Your task to perform on an android device: turn on showing notifications on the lock screen Image 0: 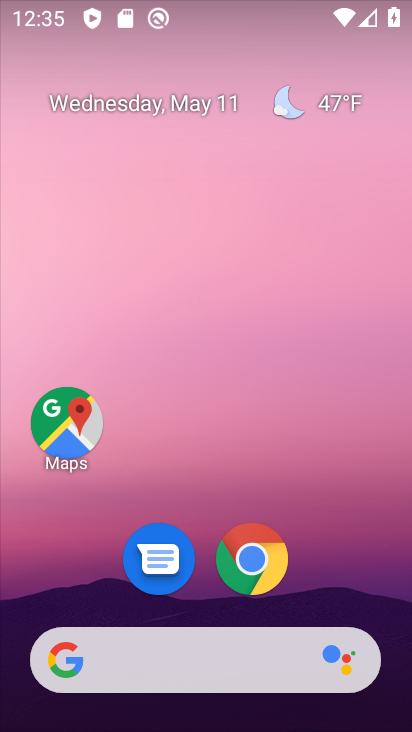
Step 0: drag from (219, 616) to (307, 102)
Your task to perform on an android device: turn on showing notifications on the lock screen Image 1: 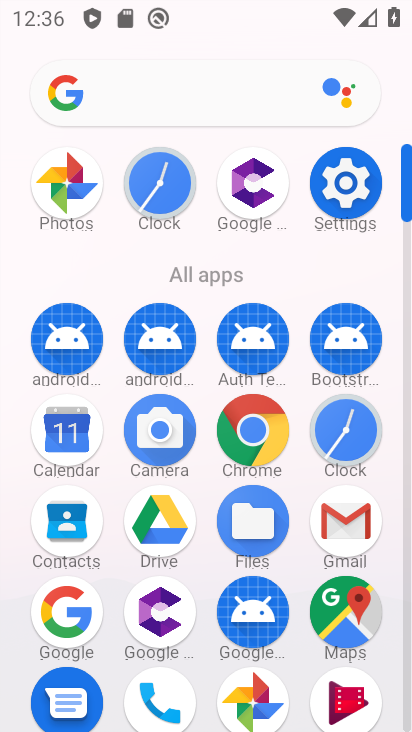
Step 1: click (351, 204)
Your task to perform on an android device: turn on showing notifications on the lock screen Image 2: 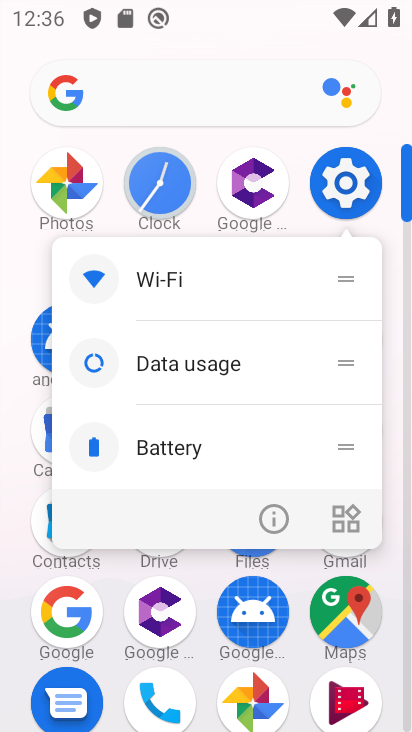
Step 2: click (357, 179)
Your task to perform on an android device: turn on showing notifications on the lock screen Image 3: 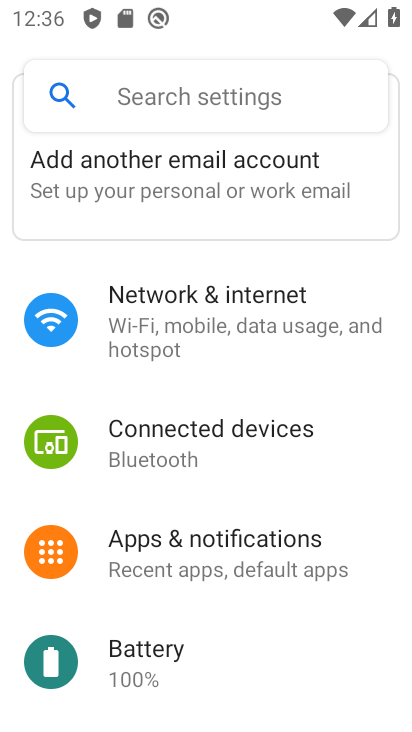
Step 3: click (203, 548)
Your task to perform on an android device: turn on showing notifications on the lock screen Image 4: 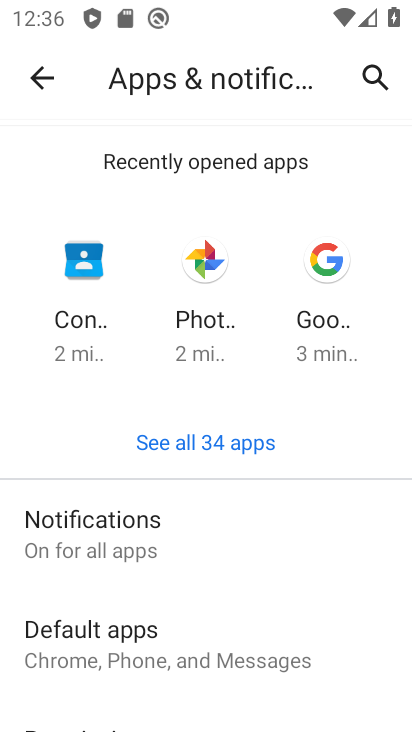
Step 4: click (171, 529)
Your task to perform on an android device: turn on showing notifications on the lock screen Image 5: 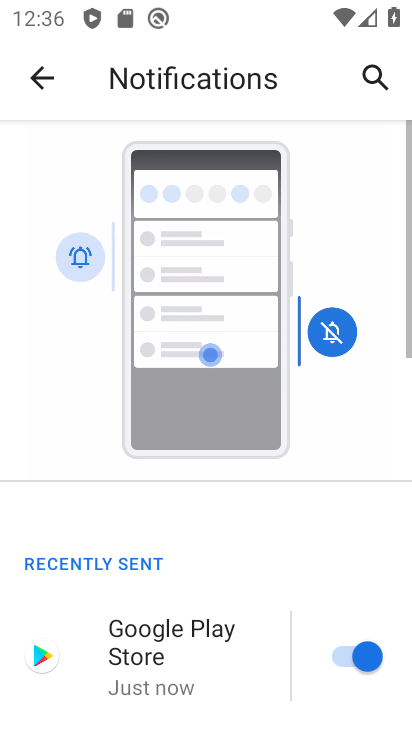
Step 5: drag from (191, 626) to (248, 125)
Your task to perform on an android device: turn on showing notifications on the lock screen Image 6: 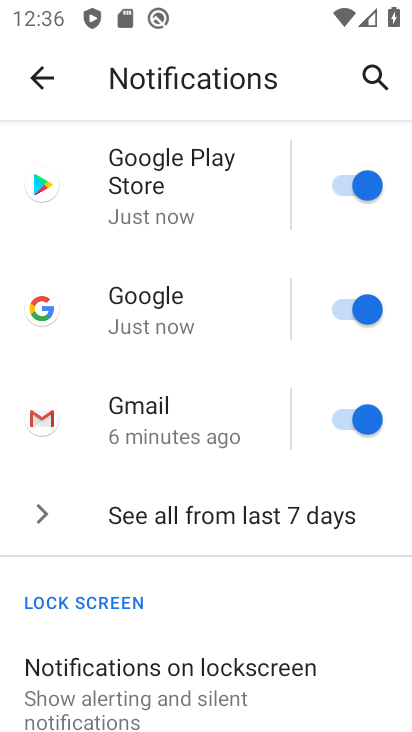
Step 6: drag from (205, 644) to (260, 268)
Your task to perform on an android device: turn on showing notifications on the lock screen Image 7: 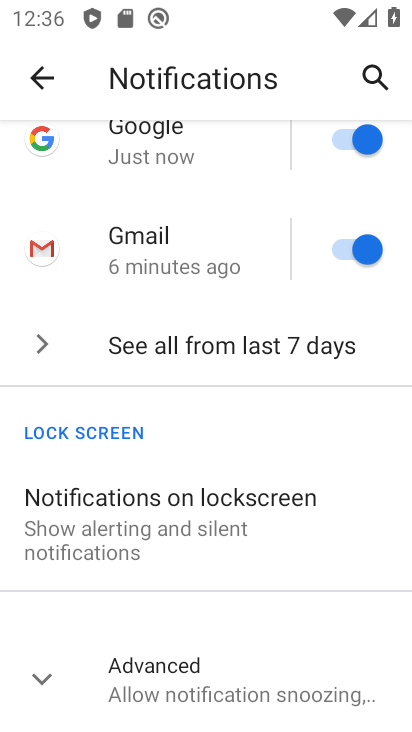
Step 7: click (190, 545)
Your task to perform on an android device: turn on showing notifications on the lock screen Image 8: 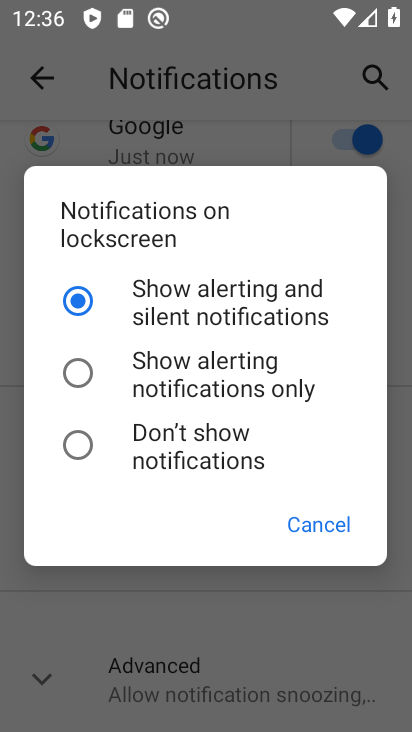
Step 8: task complete